Your task to perform on an android device: clear history in the chrome app Image 0: 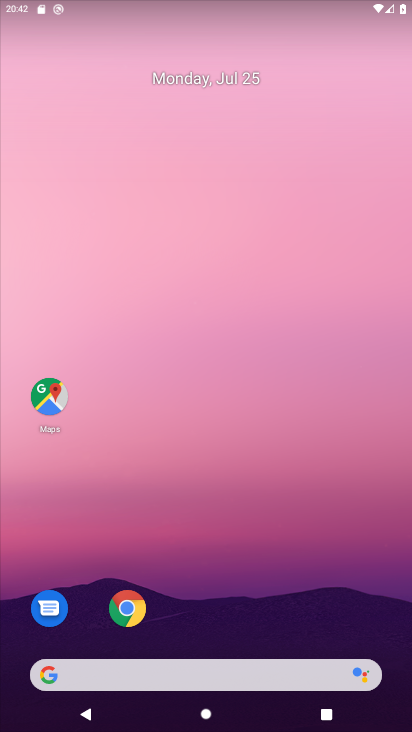
Step 0: click (135, 616)
Your task to perform on an android device: clear history in the chrome app Image 1: 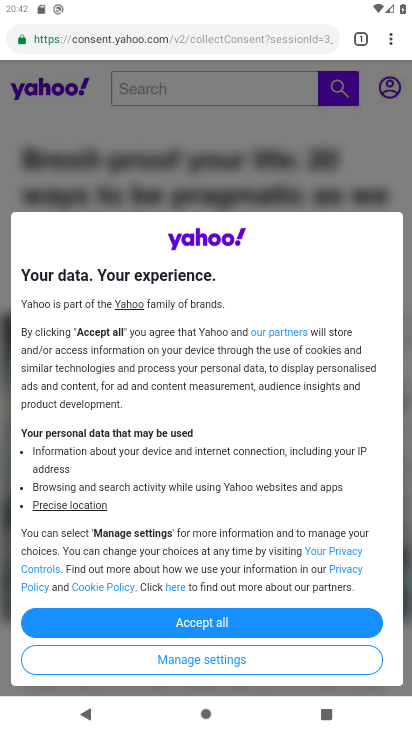
Step 1: click (400, 41)
Your task to perform on an android device: clear history in the chrome app Image 2: 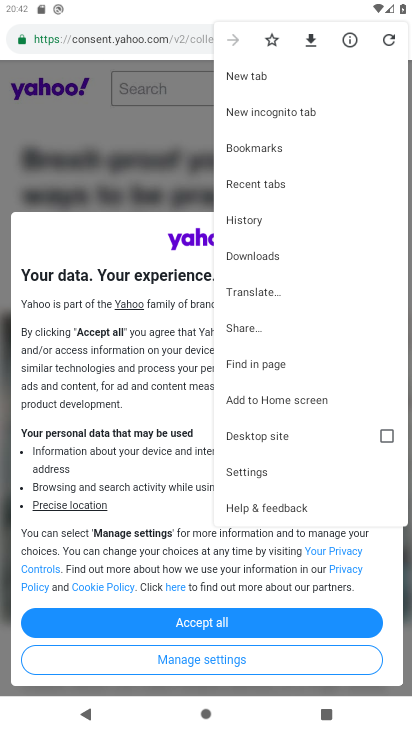
Step 2: click (260, 211)
Your task to perform on an android device: clear history in the chrome app Image 3: 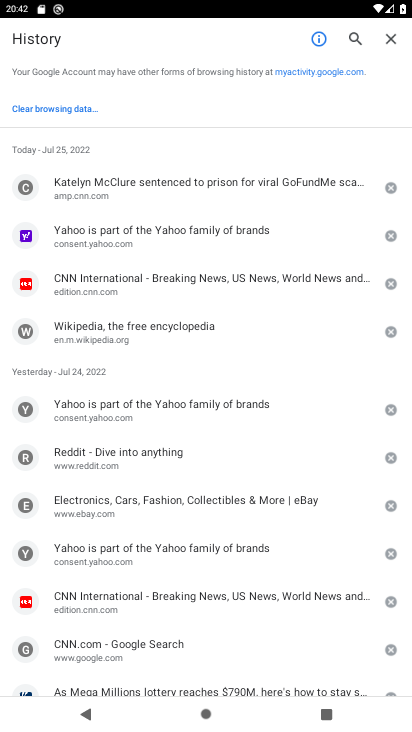
Step 3: click (55, 116)
Your task to perform on an android device: clear history in the chrome app Image 4: 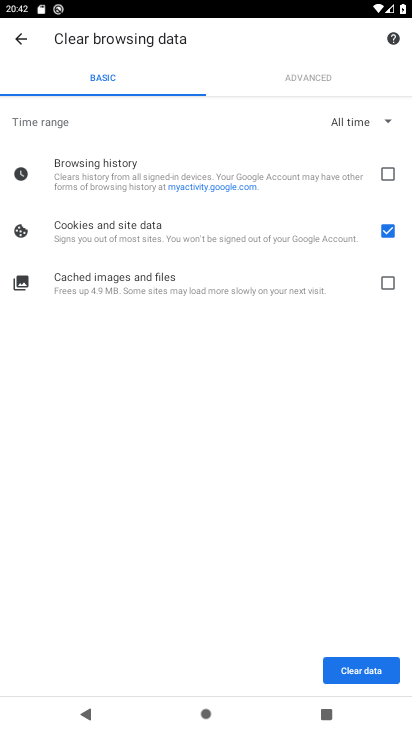
Step 4: click (381, 280)
Your task to perform on an android device: clear history in the chrome app Image 5: 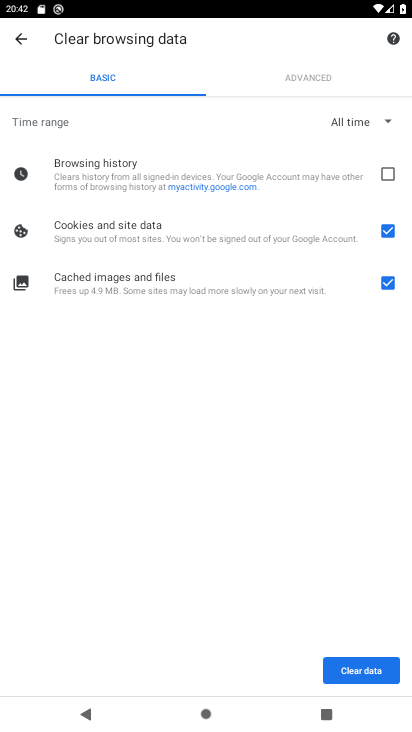
Step 5: click (393, 179)
Your task to perform on an android device: clear history in the chrome app Image 6: 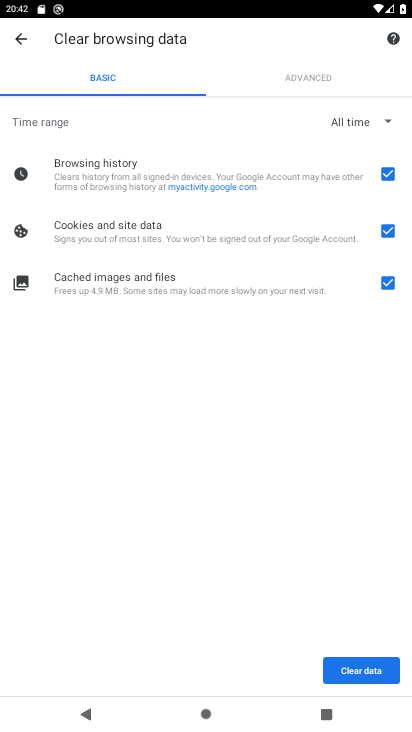
Step 6: click (383, 662)
Your task to perform on an android device: clear history in the chrome app Image 7: 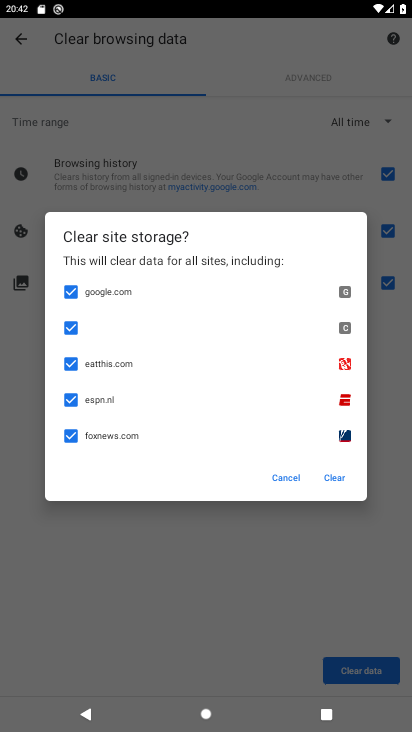
Step 7: click (333, 477)
Your task to perform on an android device: clear history in the chrome app Image 8: 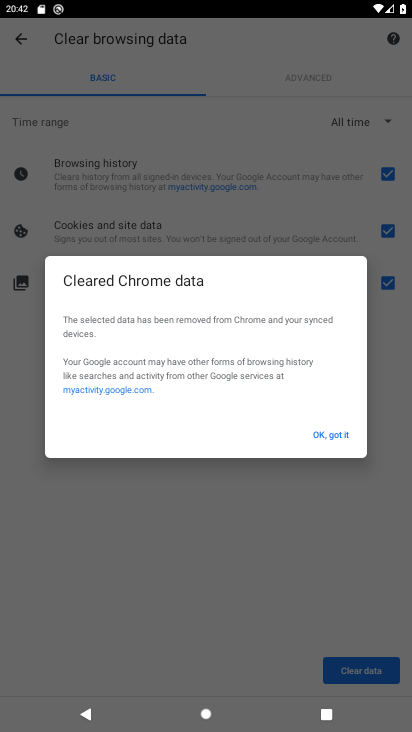
Step 8: click (333, 433)
Your task to perform on an android device: clear history in the chrome app Image 9: 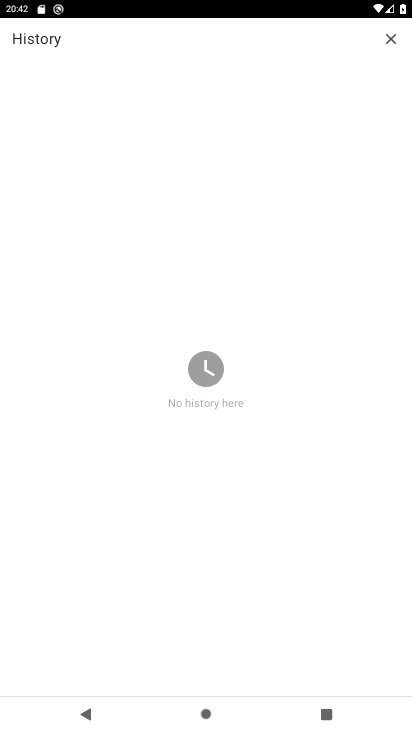
Step 9: task complete